Your task to perform on an android device: Go to Maps Image 0: 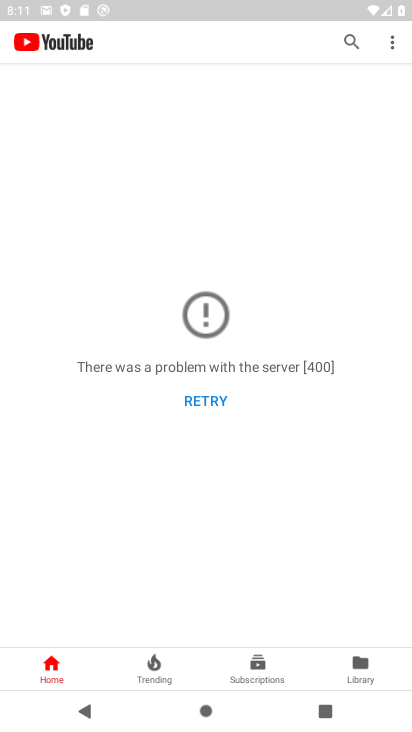
Step 0: press home button
Your task to perform on an android device: Go to Maps Image 1: 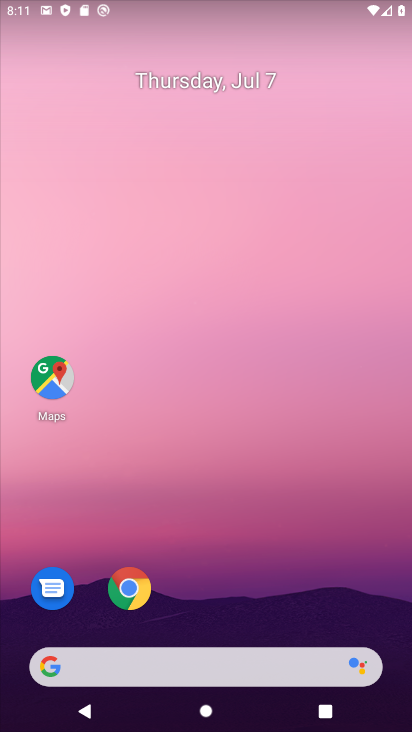
Step 1: click (45, 372)
Your task to perform on an android device: Go to Maps Image 2: 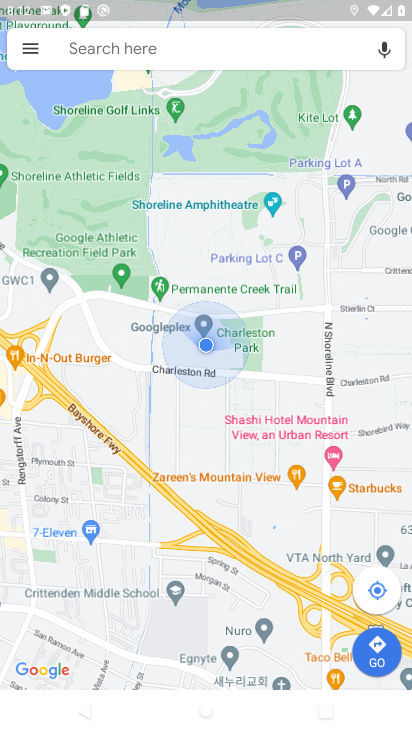
Step 2: task complete